Your task to perform on an android device: open a bookmark in the chrome app Image 0: 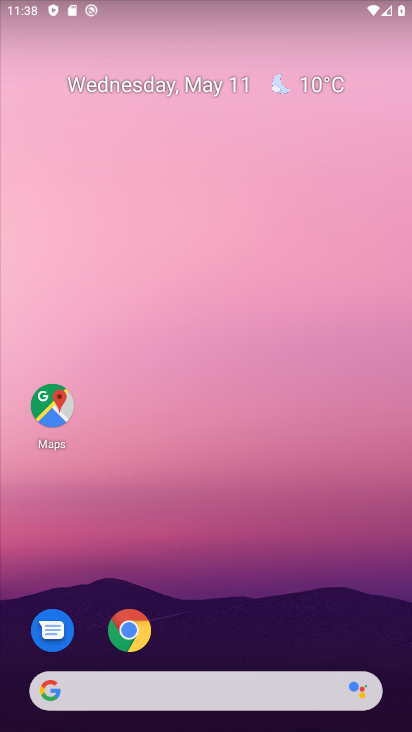
Step 0: click (117, 649)
Your task to perform on an android device: open a bookmark in the chrome app Image 1: 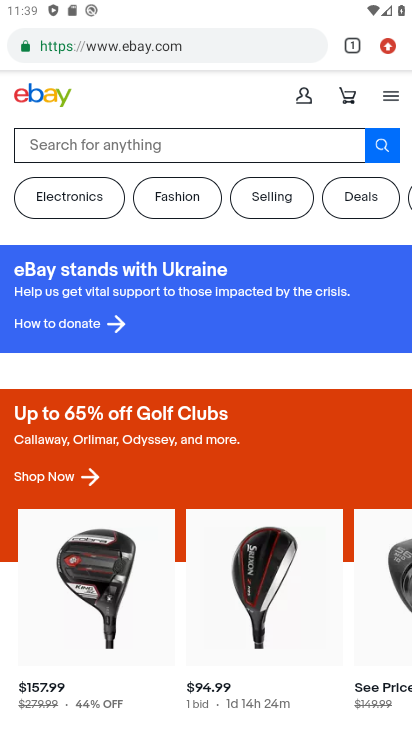
Step 1: task complete